Your task to perform on an android device: Open the stopwatch Image 0: 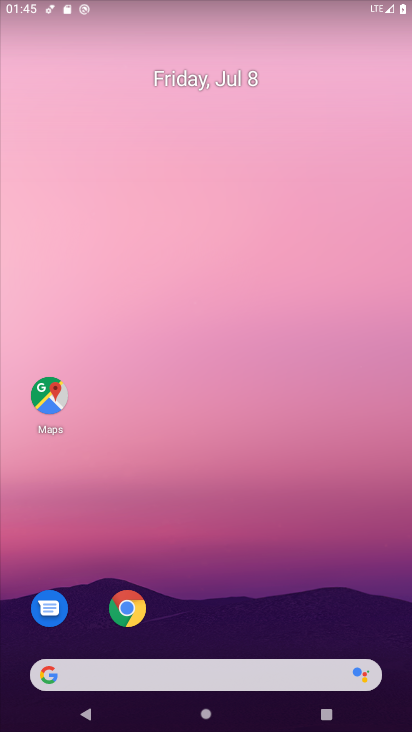
Step 0: drag from (145, 644) to (298, 269)
Your task to perform on an android device: Open the stopwatch Image 1: 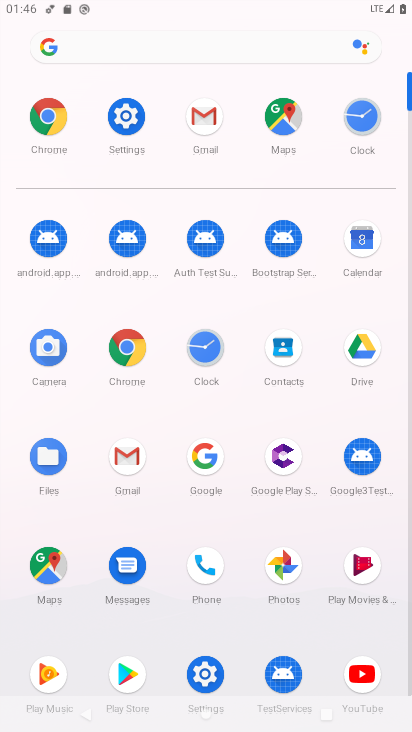
Step 1: click (193, 351)
Your task to perform on an android device: Open the stopwatch Image 2: 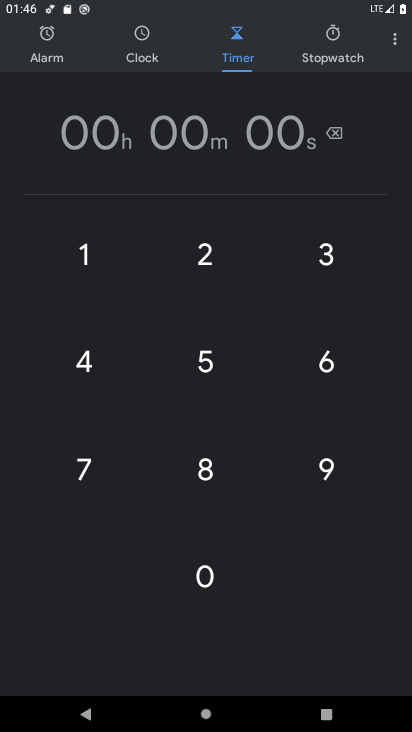
Step 2: press home button
Your task to perform on an android device: Open the stopwatch Image 3: 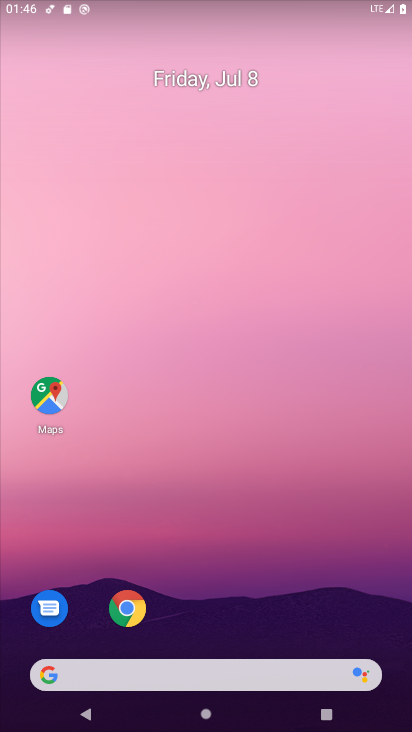
Step 3: drag from (237, 591) to (245, 141)
Your task to perform on an android device: Open the stopwatch Image 4: 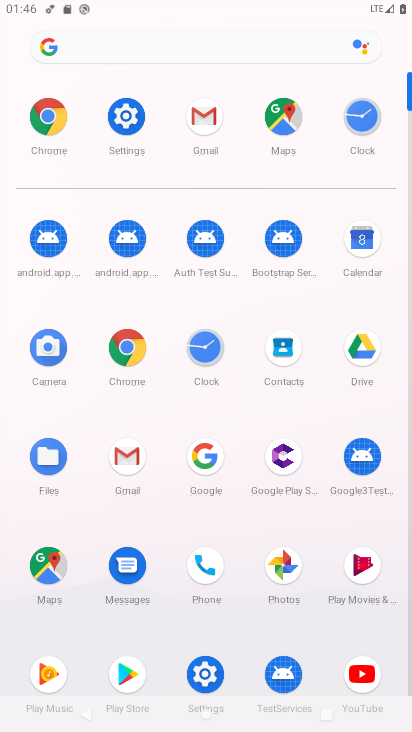
Step 4: click (199, 344)
Your task to perform on an android device: Open the stopwatch Image 5: 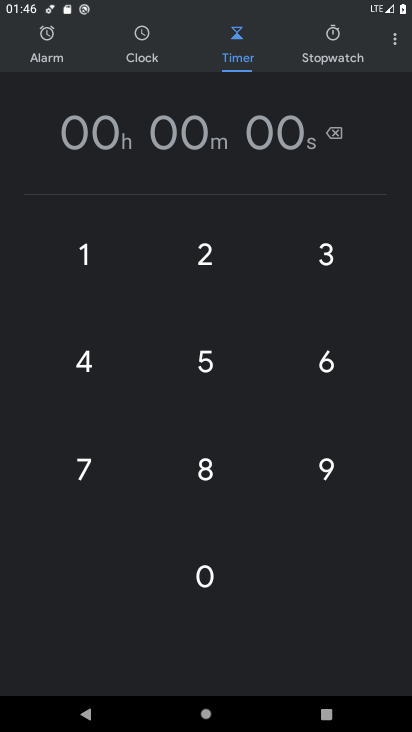
Step 5: press home button
Your task to perform on an android device: Open the stopwatch Image 6: 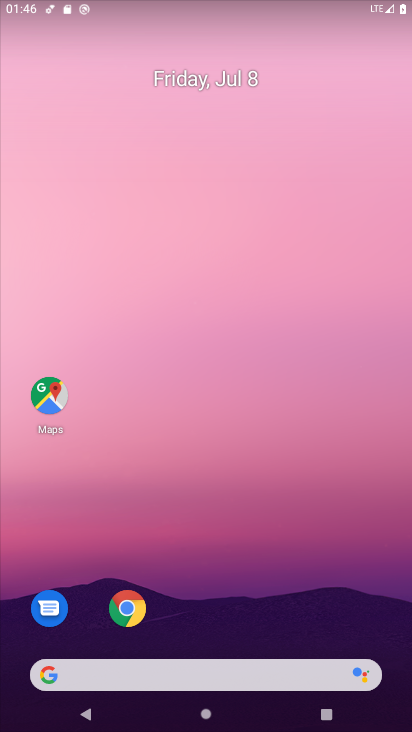
Step 6: drag from (250, 633) to (250, 146)
Your task to perform on an android device: Open the stopwatch Image 7: 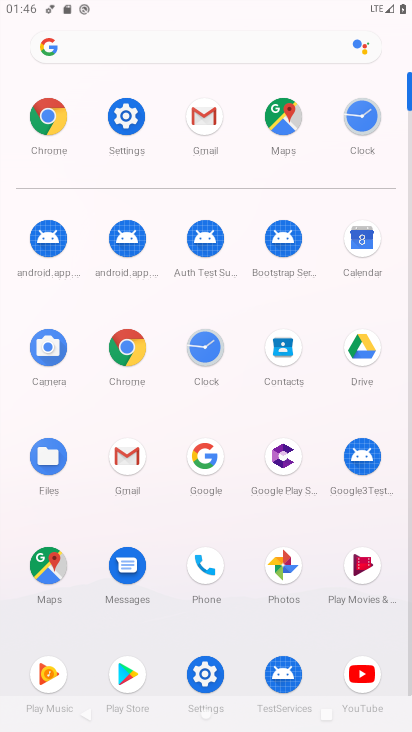
Step 7: click (203, 340)
Your task to perform on an android device: Open the stopwatch Image 8: 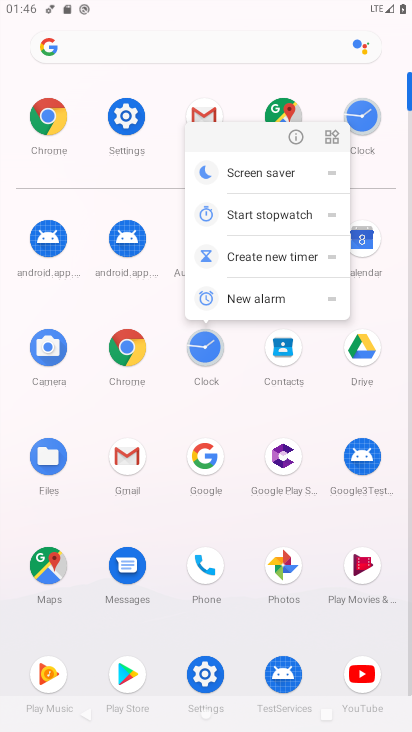
Step 8: click (202, 348)
Your task to perform on an android device: Open the stopwatch Image 9: 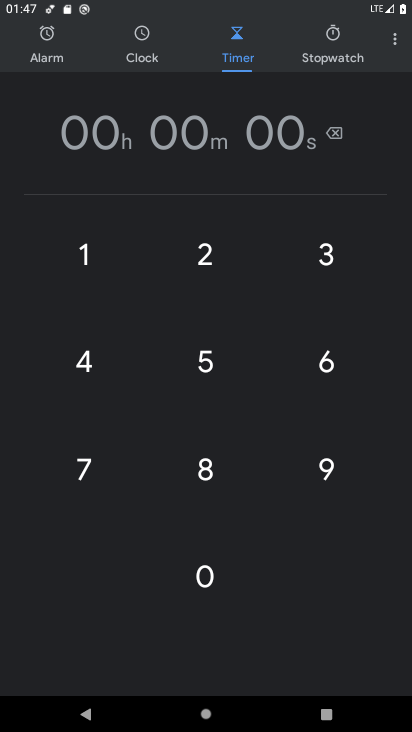
Step 9: click (327, 26)
Your task to perform on an android device: Open the stopwatch Image 10: 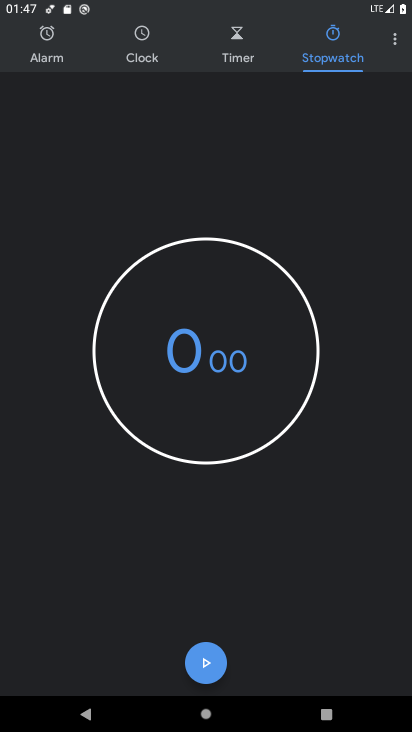
Step 10: task complete